Your task to perform on an android device: Clear all items from cart on newegg. Add apple airpods pro to the cart on newegg, then select checkout. Image 0: 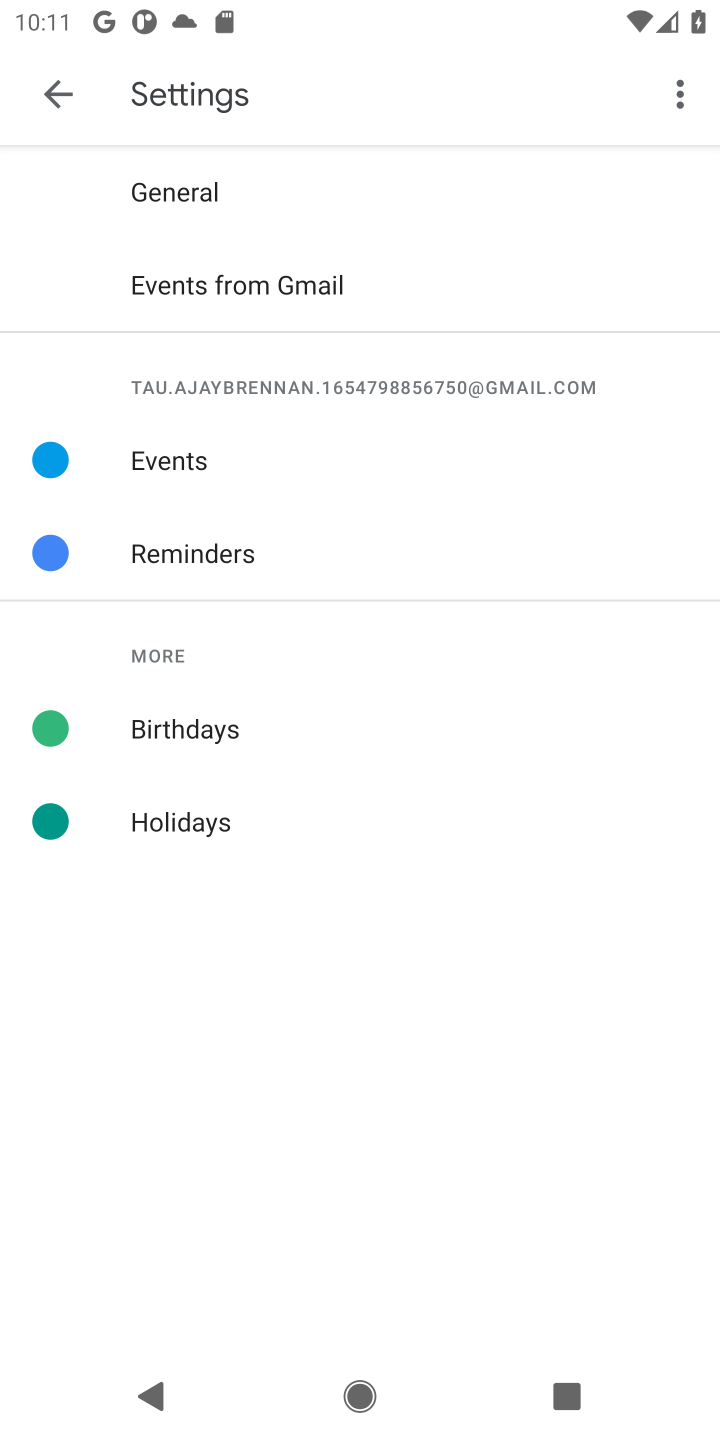
Step 0: press home button
Your task to perform on an android device: Clear all items from cart on newegg. Add apple airpods pro to the cart on newegg, then select checkout. Image 1: 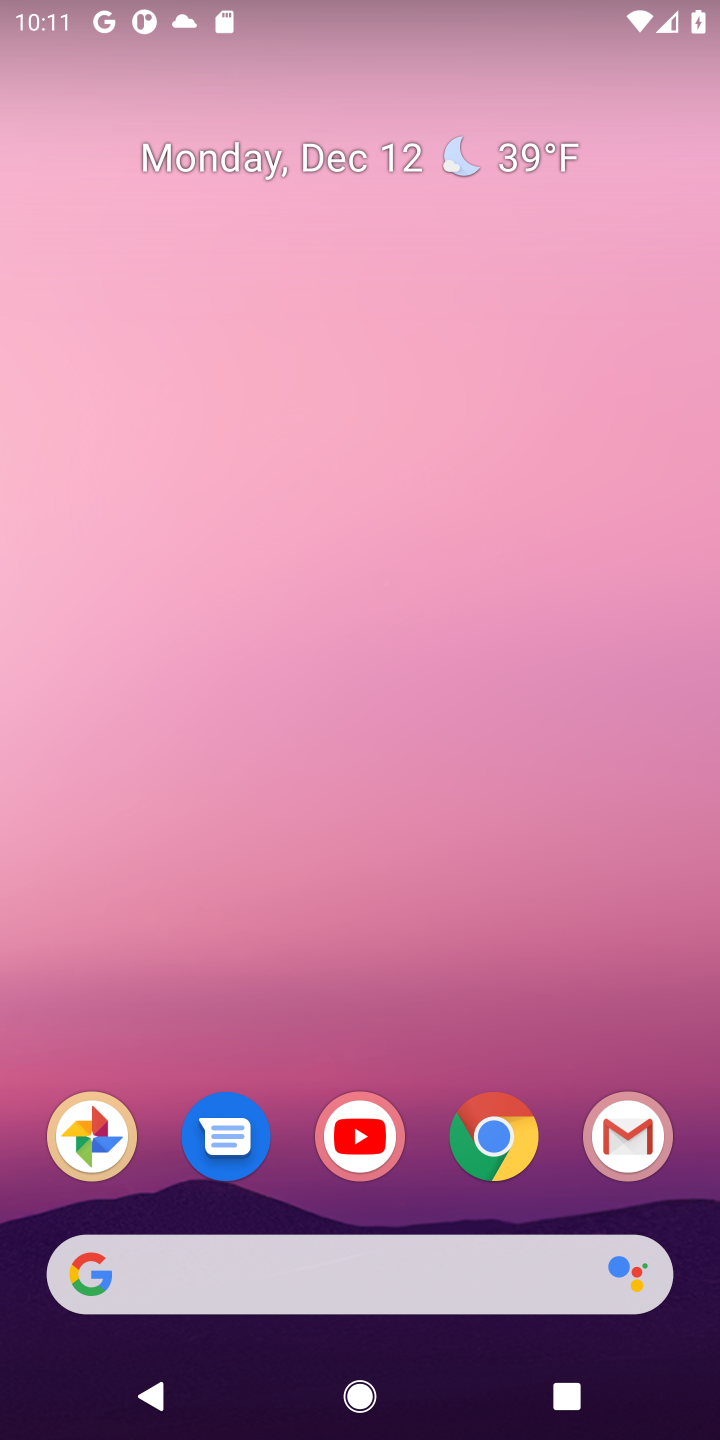
Step 1: click (486, 1144)
Your task to perform on an android device: Clear all items from cart on newegg. Add apple airpods pro to the cart on newegg, then select checkout. Image 2: 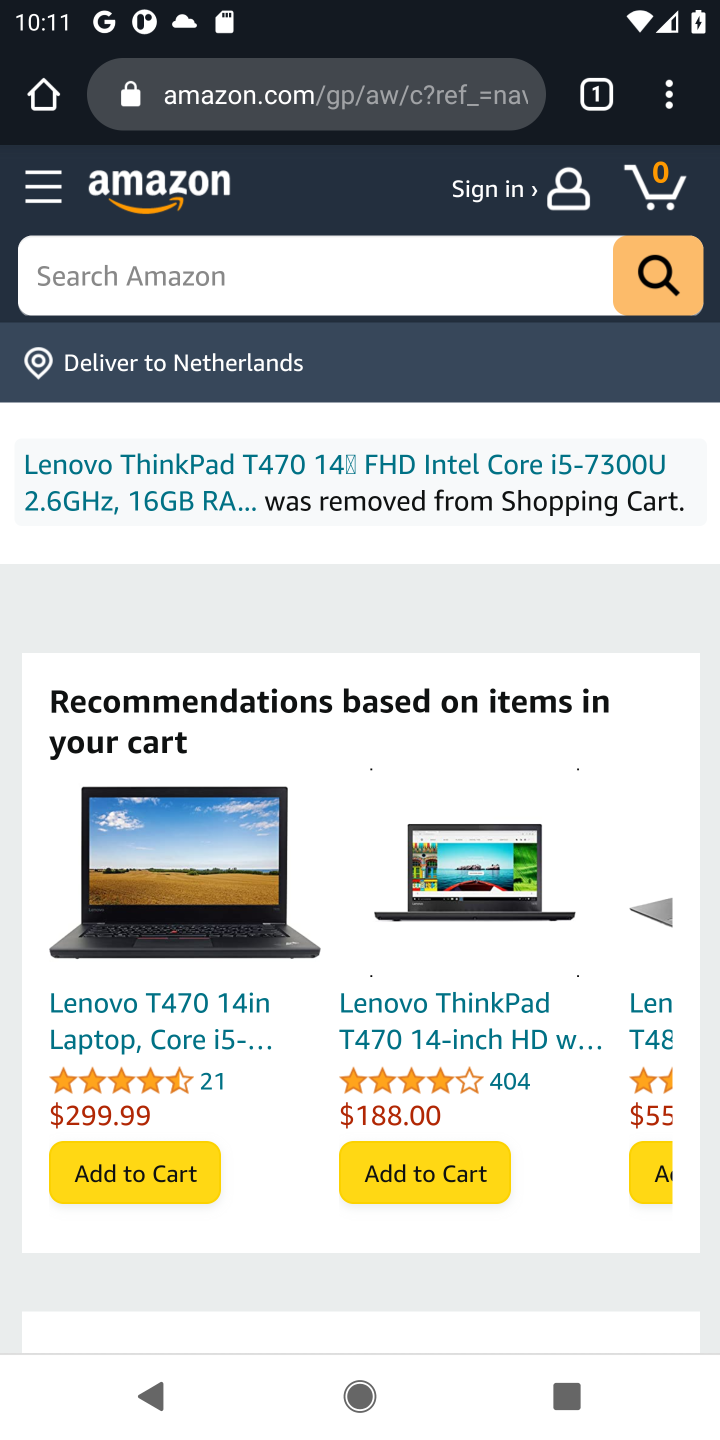
Step 2: click (239, 103)
Your task to perform on an android device: Clear all items from cart on newegg. Add apple airpods pro to the cart on newegg, then select checkout. Image 3: 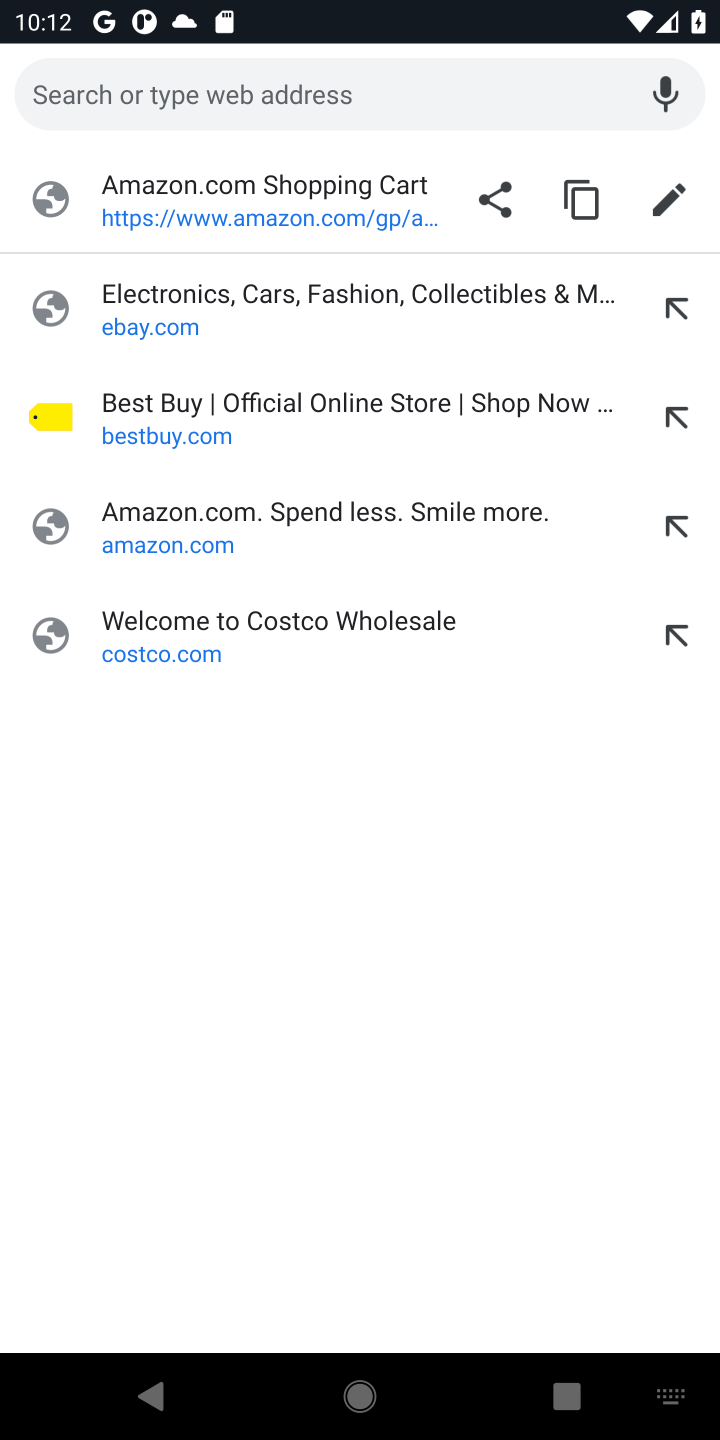
Step 3: type "newegg.com"
Your task to perform on an android device: Clear all items from cart on newegg. Add apple airpods pro to the cart on newegg, then select checkout. Image 4: 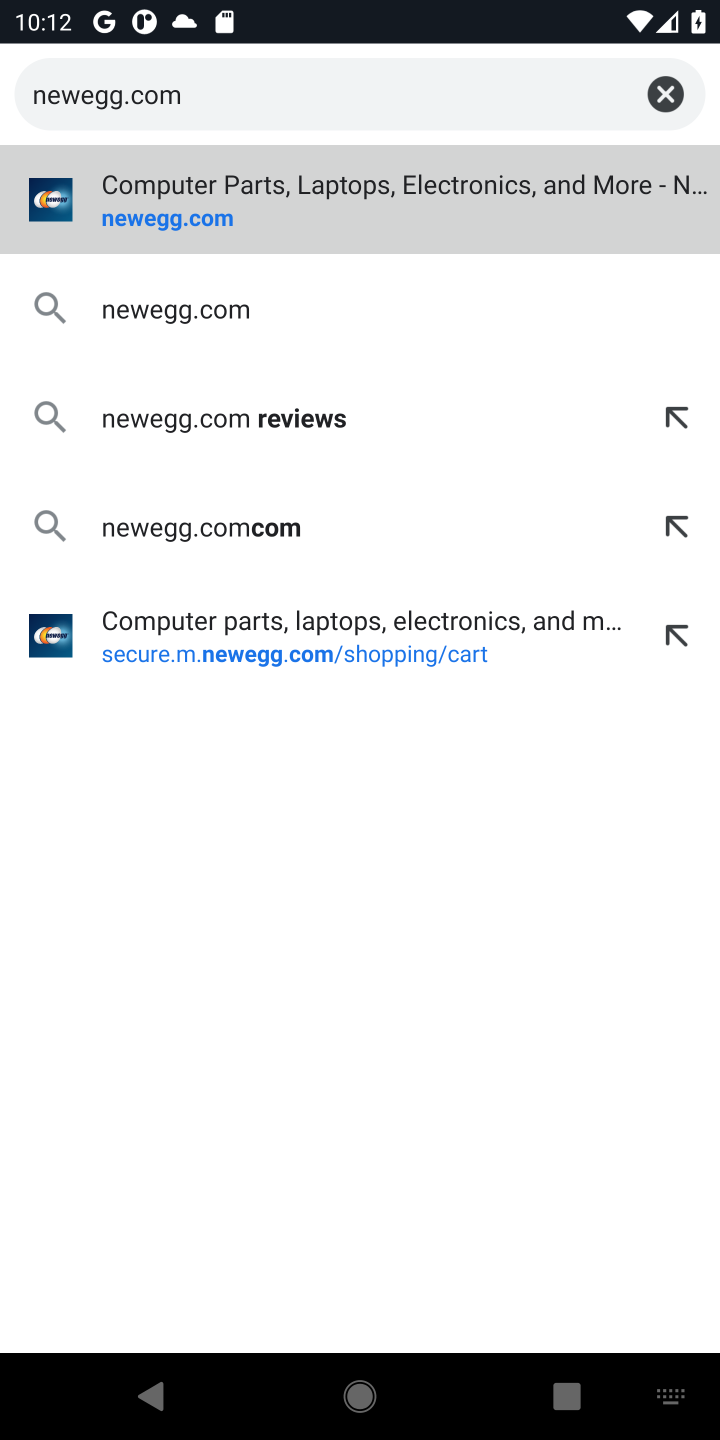
Step 4: click (183, 222)
Your task to perform on an android device: Clear all items from cart on newegg. Add apple airpods pro to the cart on newegg, then select checkout. Image 5: 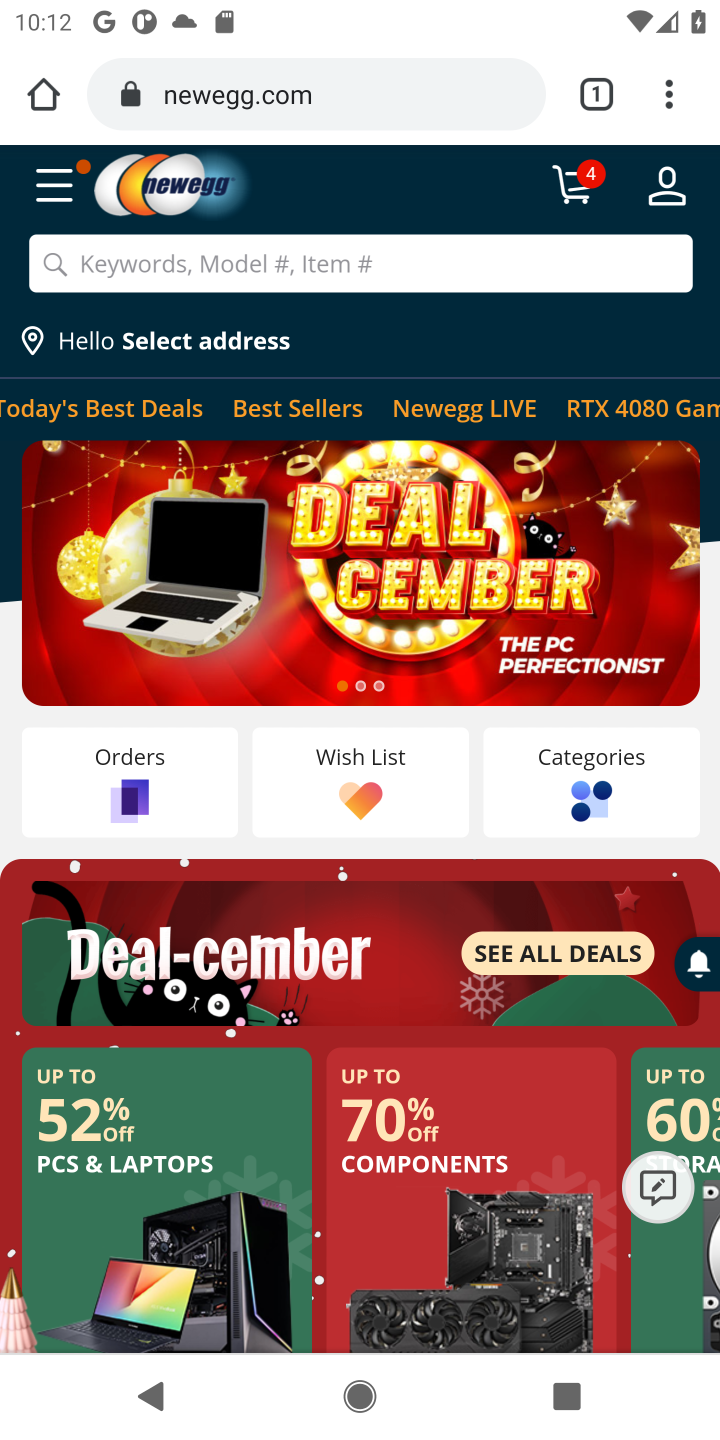
Step 5: click (575, 198)
Your task to perform on an android device: Clear all items from cart on newegg. Add apple airpods pro to the cart on newegg, then select checkout. Image 6: 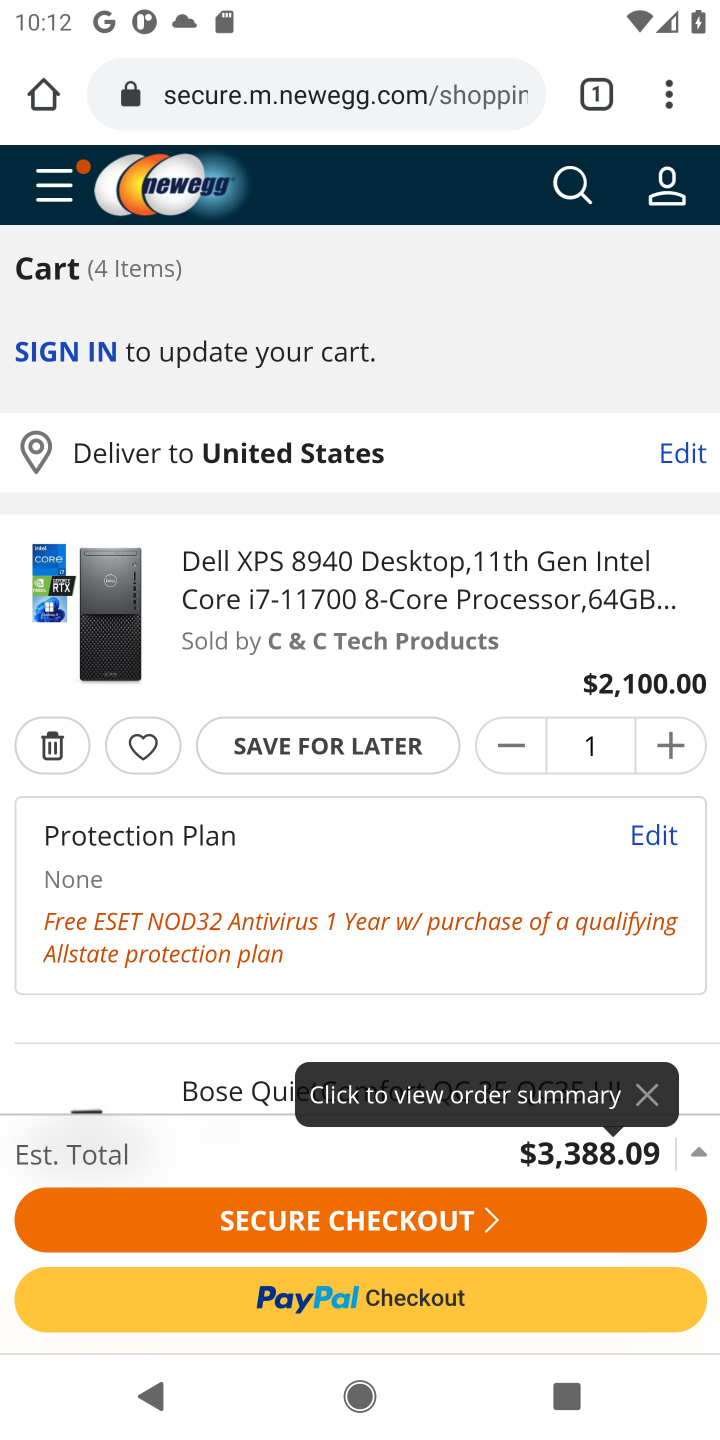
Step 6: click (55, 754)
Your task to perform on an android device: Clear all items from cart on newegg. Add apple airpods pro to the cart on newegg, then select checkout. Image 7: 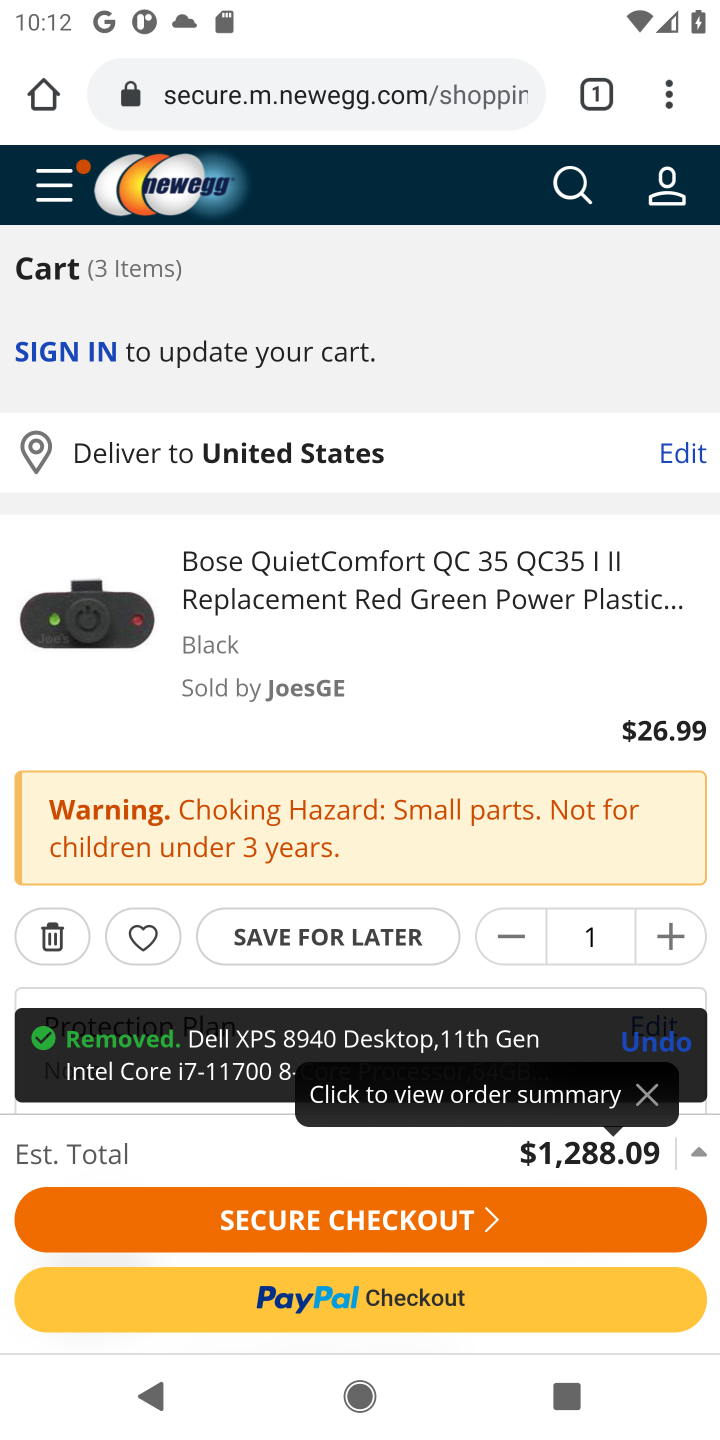
Step 7: click (45, 934)
Your task to perform on an android device: Clear all items from cart on newegg. Add apple airpods pro to the cart on newegg, then select checkout. Image 8: 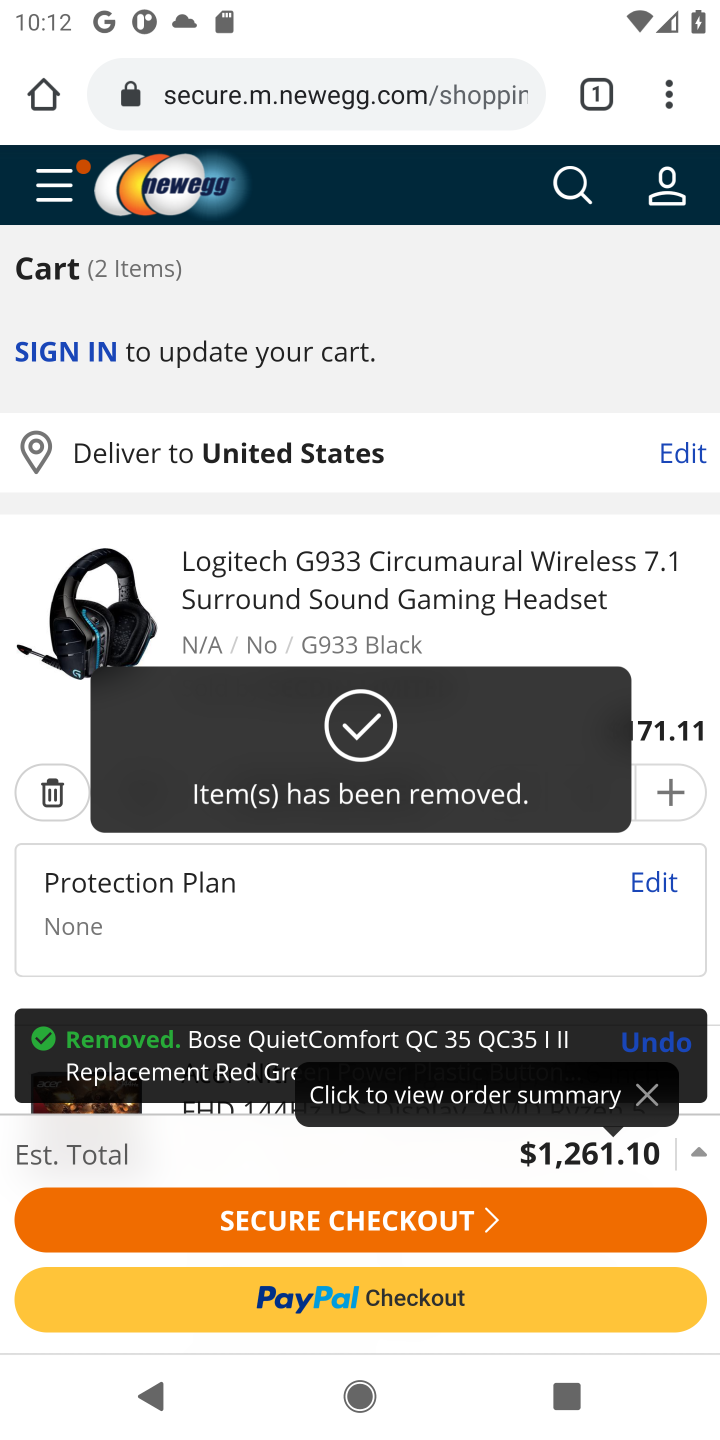
Step 8: click (54, 799)
Your task to perform on an android device: Clear all items from cart on newegg. Add apple airpods pro to the cart on newegg, then select checkout. Image 9: 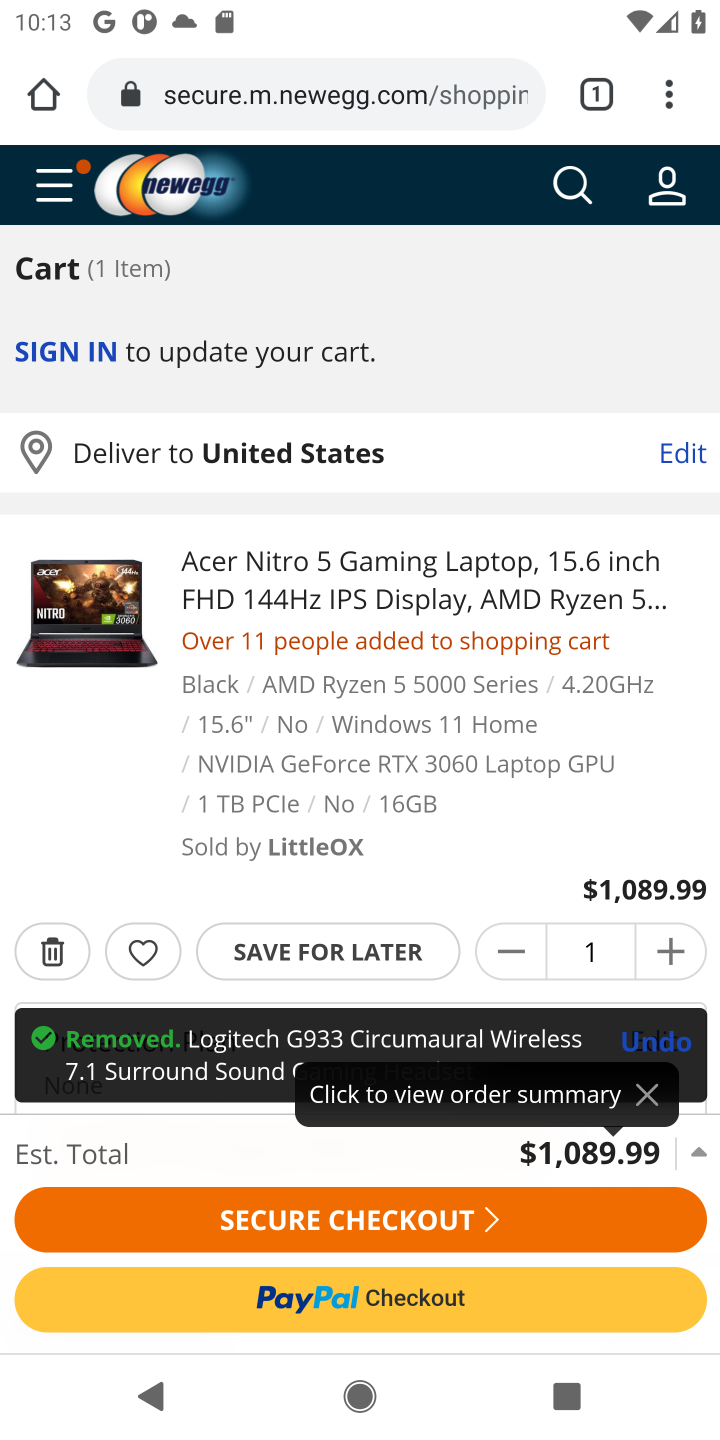
Step 9: click (46, 952)
Your task to perform on an android device: Clear all items from cart on newegg. Add apple airpods pro to the cart on newegg, then select checkout. Image 10: 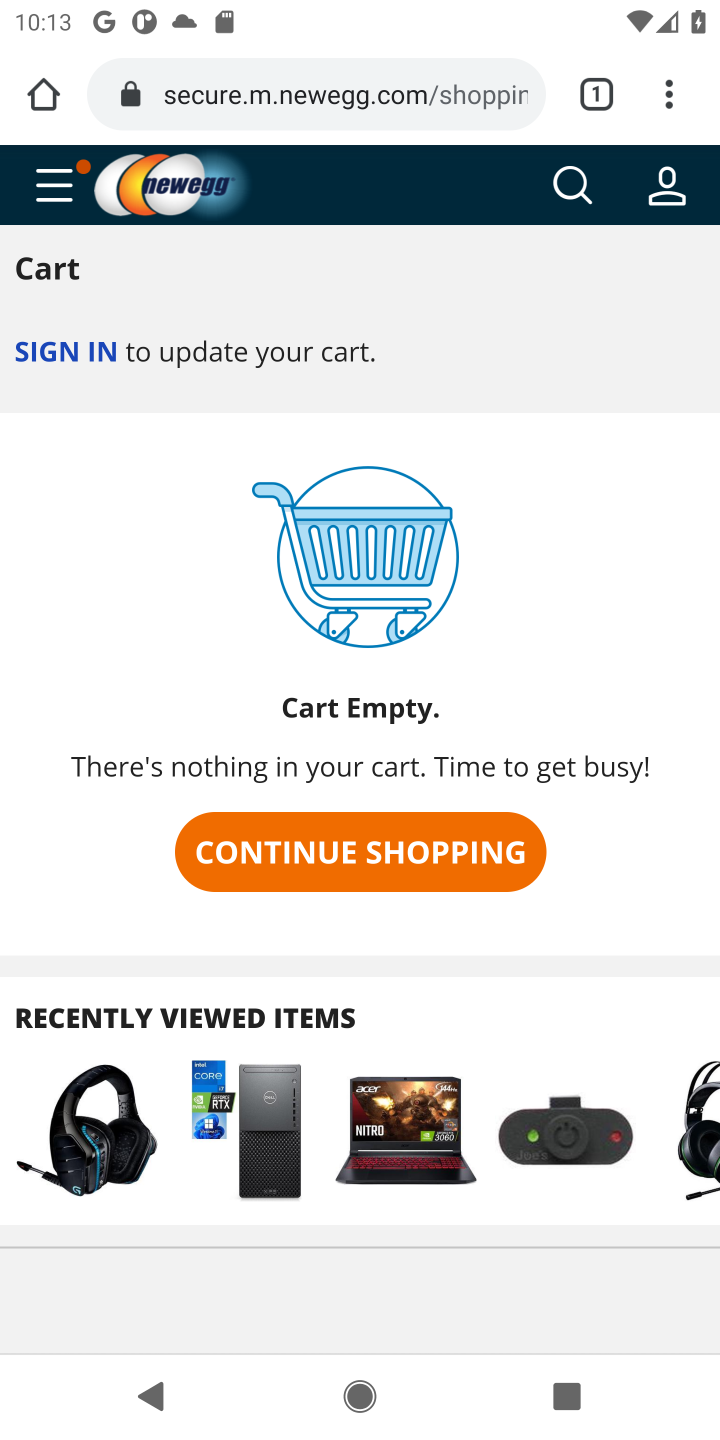
Step 10: click (570, 196)
Your task to perform on an android device: Clear all items from cart on newegg. Add apple airpods pro to the cart on newegg, then select checkout. Image 11: 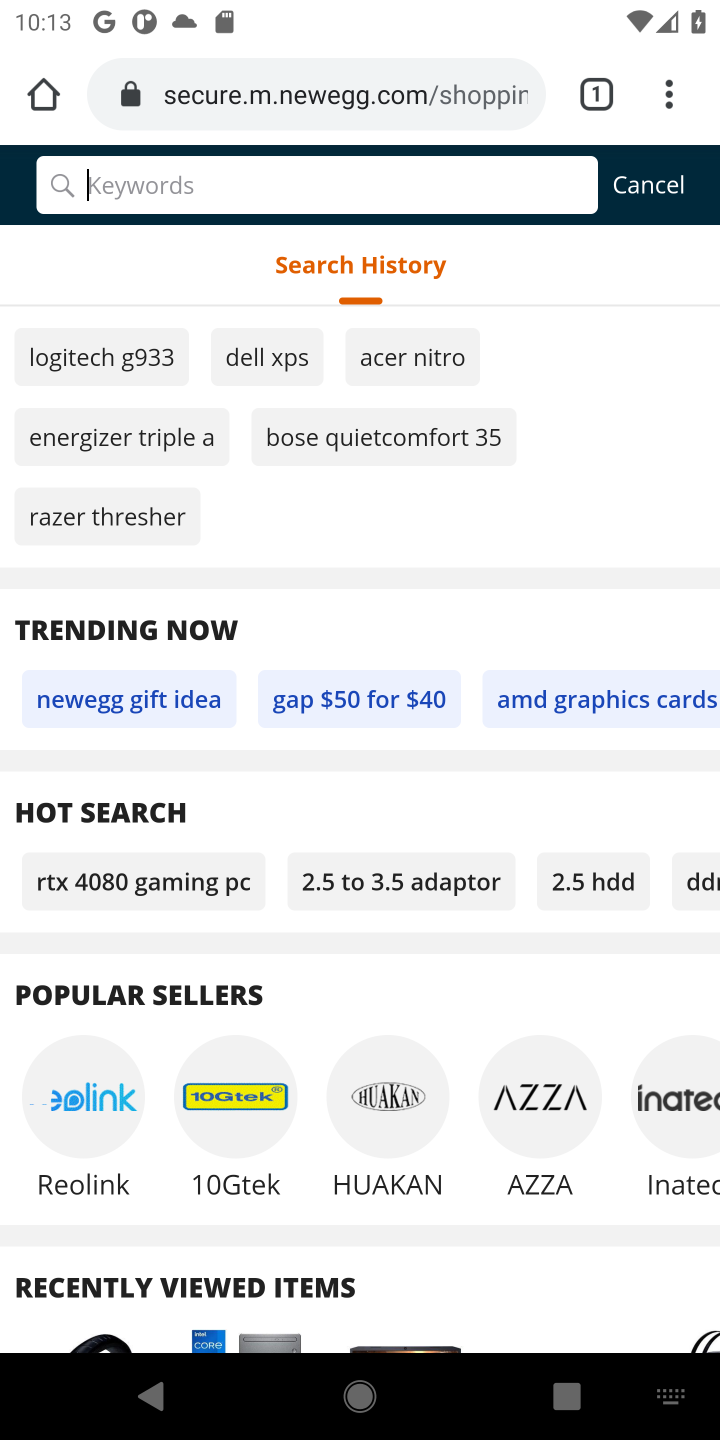
Step 11: type " apple airpods pro"
Your task to perform on an android device: Clear all items from cart on newegg. Add apple airpods pro to the cart on newegg, then select checkout. Image 12: 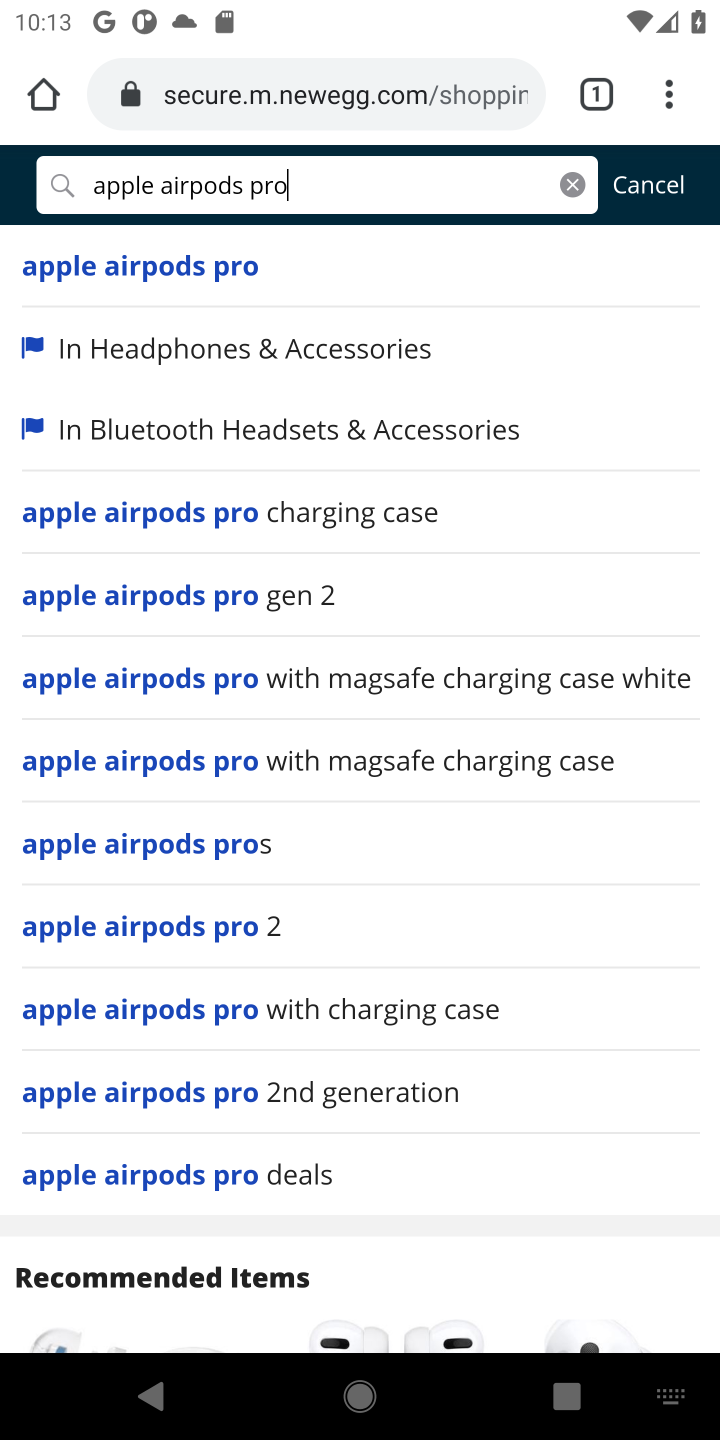
Step 12: click (211, 279)
Your task to perform on an android device: Clear all items from cart on newegg. Add apple airpods pro to the cart on newegg, then select checkout. Image 13: 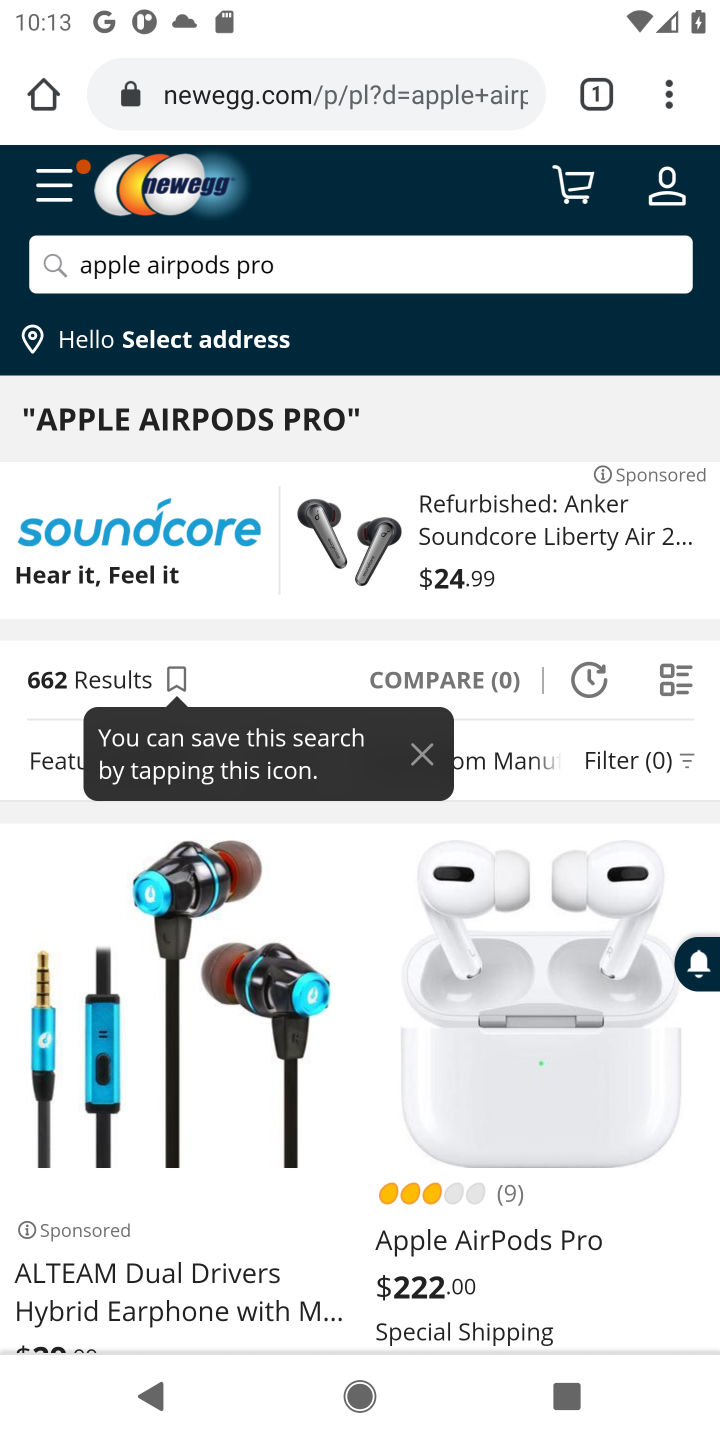
Step 13: drag from (202, 1038) to (260, 616)
Your task to perform on an android device: Clear all items from cart on newegg. Add apple airpods pro to the cart on newegg, then select checkout. Image 14: 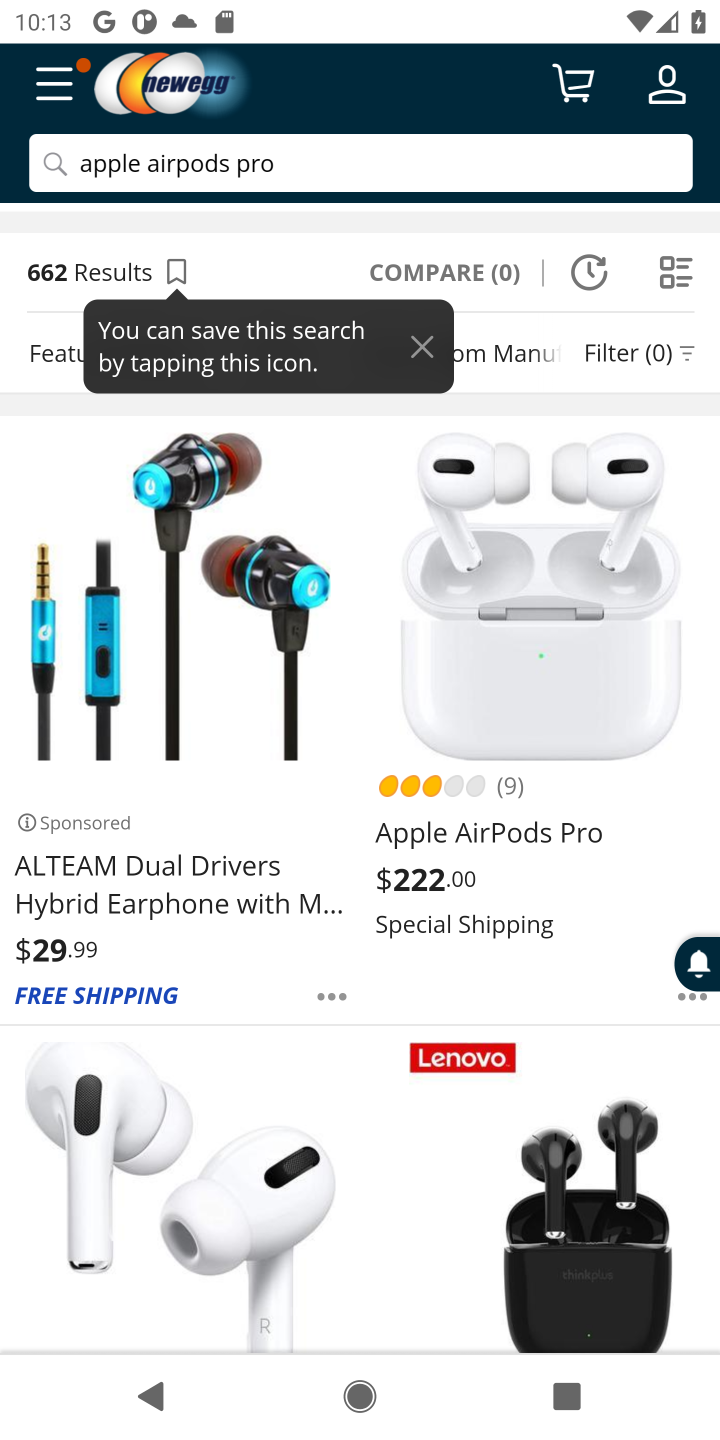
Step 14: click (551, 751)
Your task to perform on an android device: Clear all items from cart on newegg. Add apple airpods pro to the cart on newegg, then select checkout. Image 15: 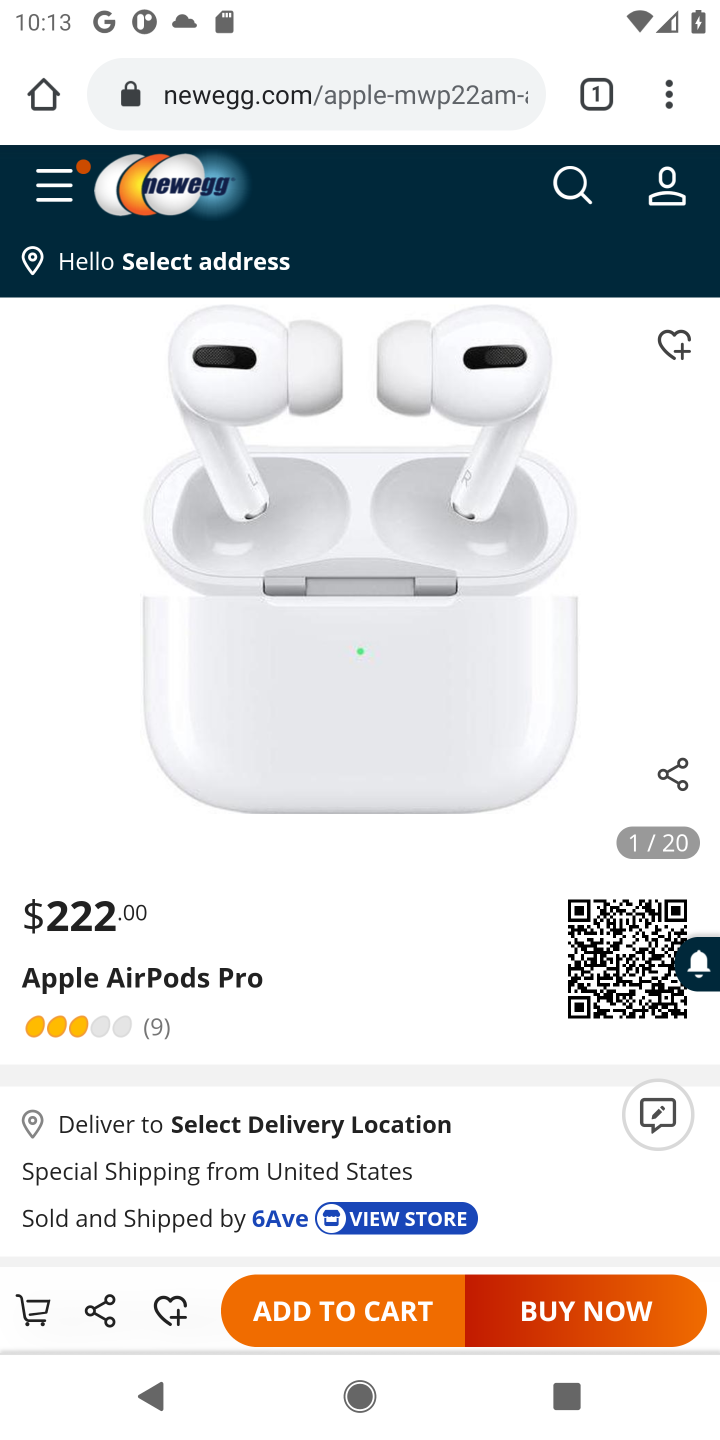
Step 15: click (376, 1319)
Your task to perform on an android device: Clear all items from cart on newegg. Add apple airpods pro to the cart on newegg, then select checkout. Image 16: 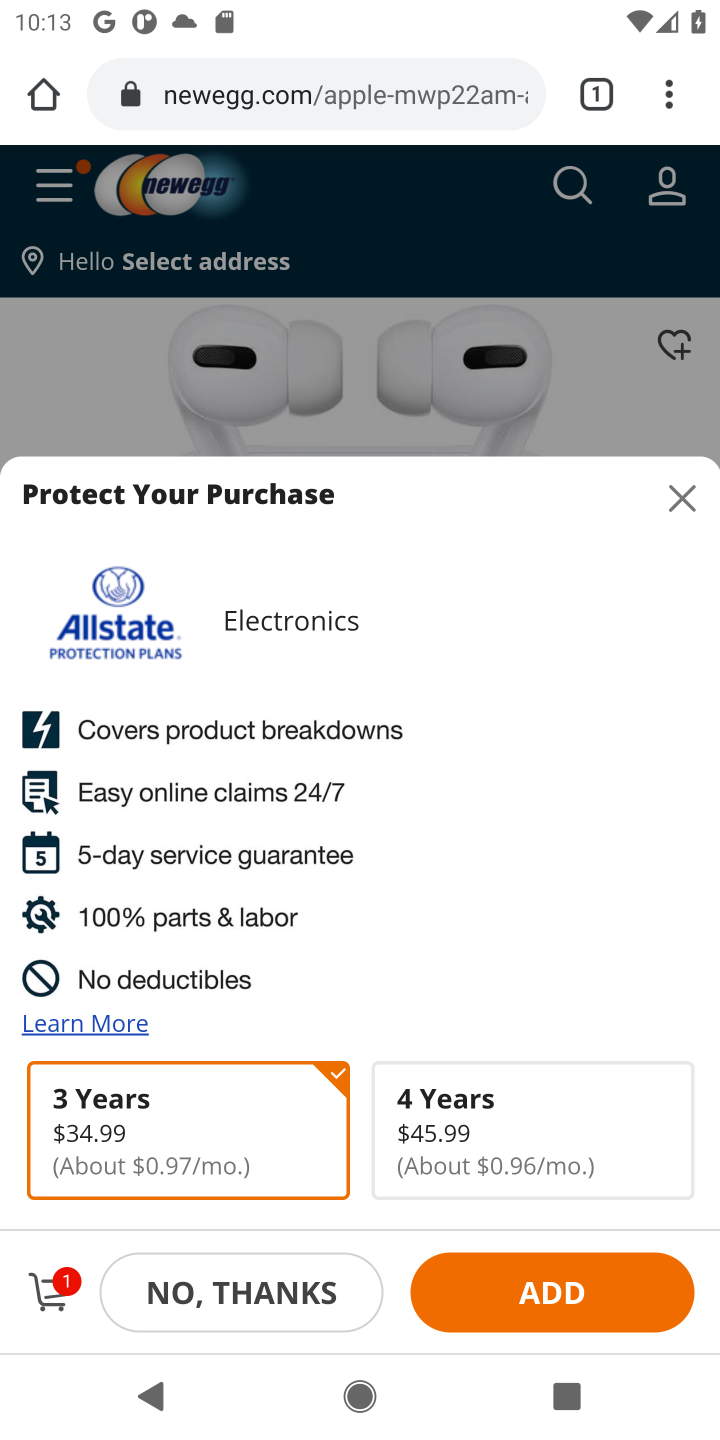
Step 16: click (50, 1298)
Your task to perform on an android device: Clear all items from cart on newegg. Add apple airpods pro to the cart on newegg, then select checkout. Image 17: 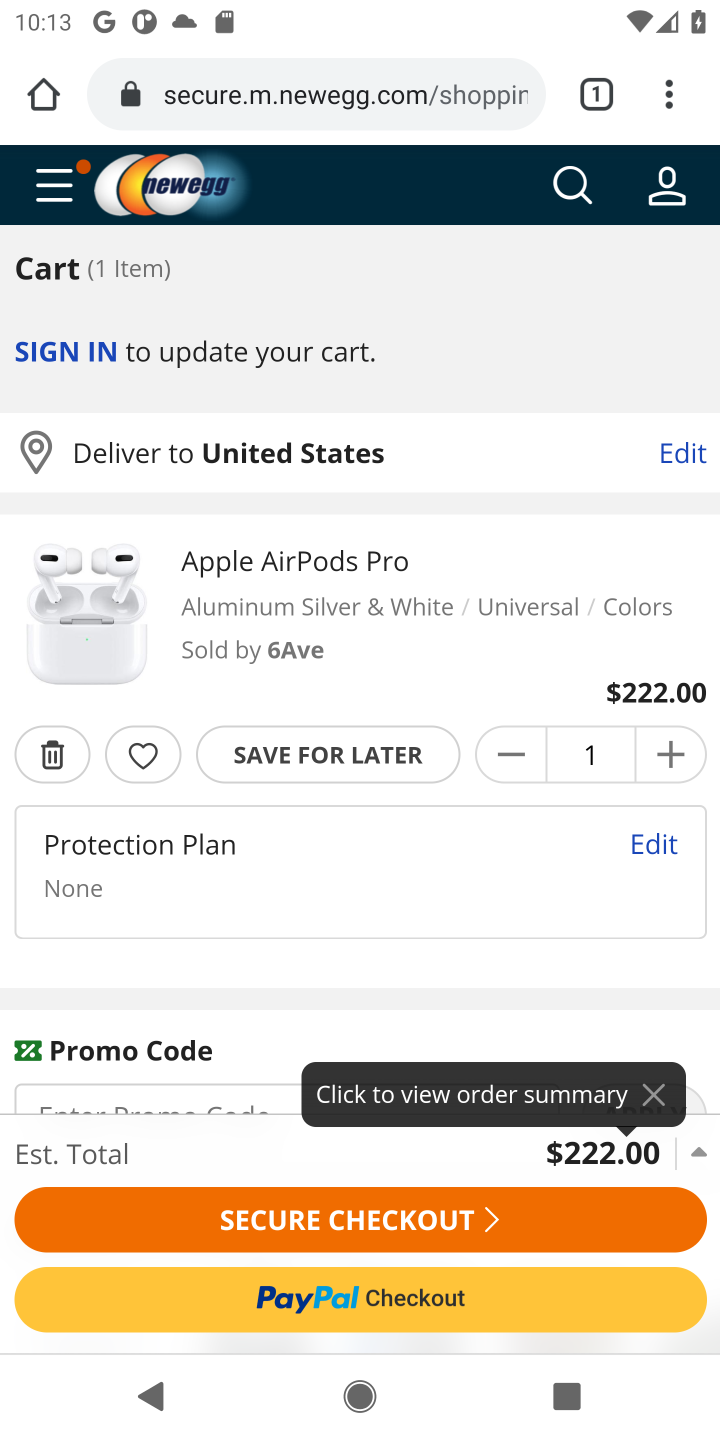
Step 17: click (470, 1227)
Your task to perform on an android device: Clear all items from cart on newegg. Add apple airpods pro to the cart on newegg, then select checkout. Image 18: 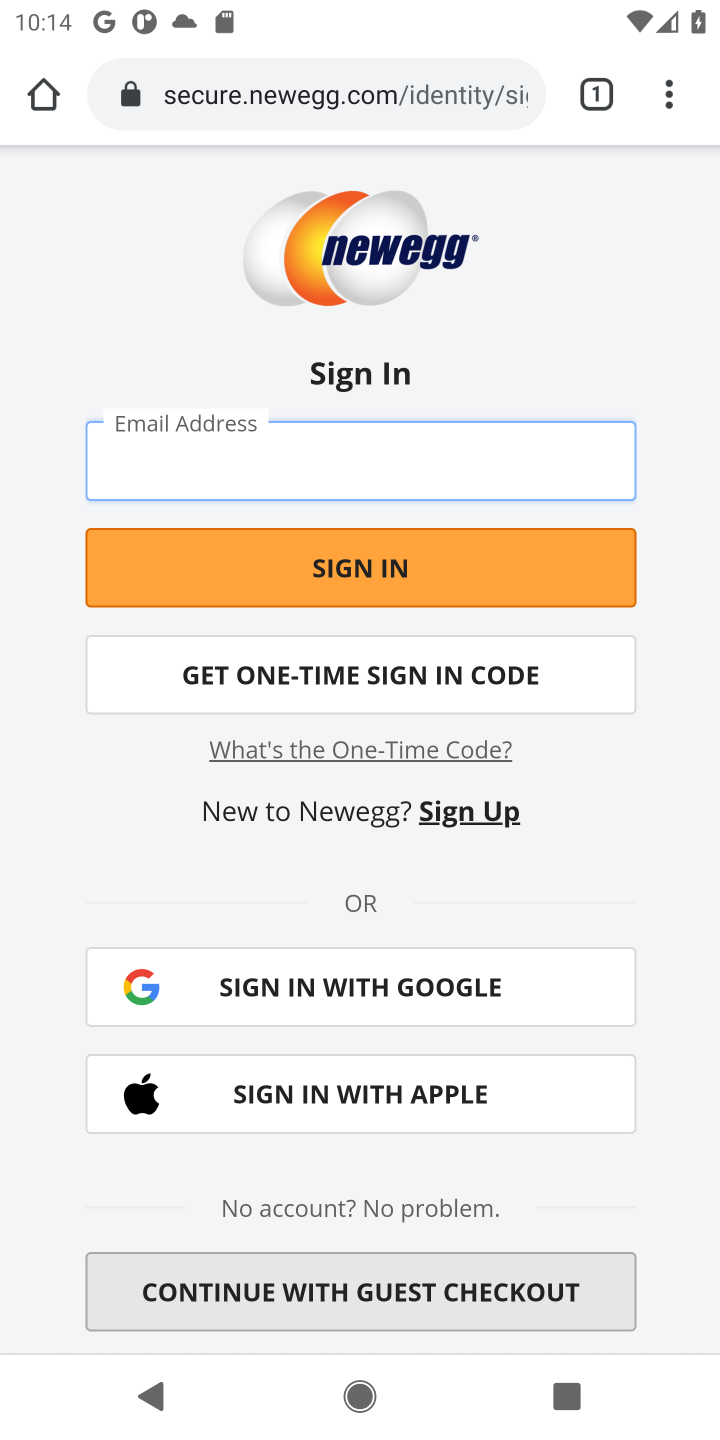
Step 18: task complete